Your task to perform on an android device: turn on wifi Image 0: 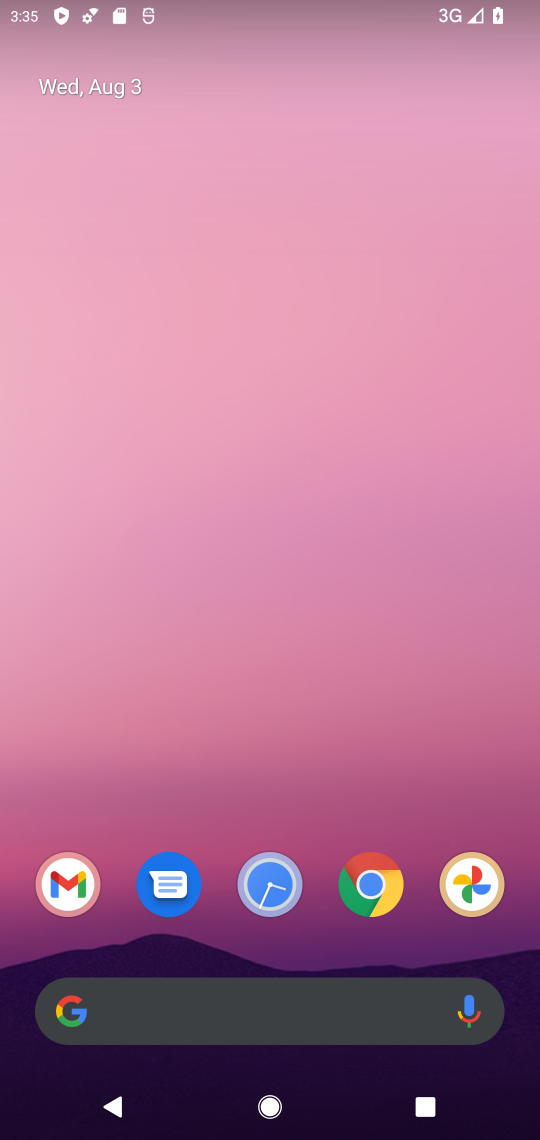
Step 0: drag from (209, 968) to (245, 234)
Your task to perform on an android device: turn on wifi Image 1: 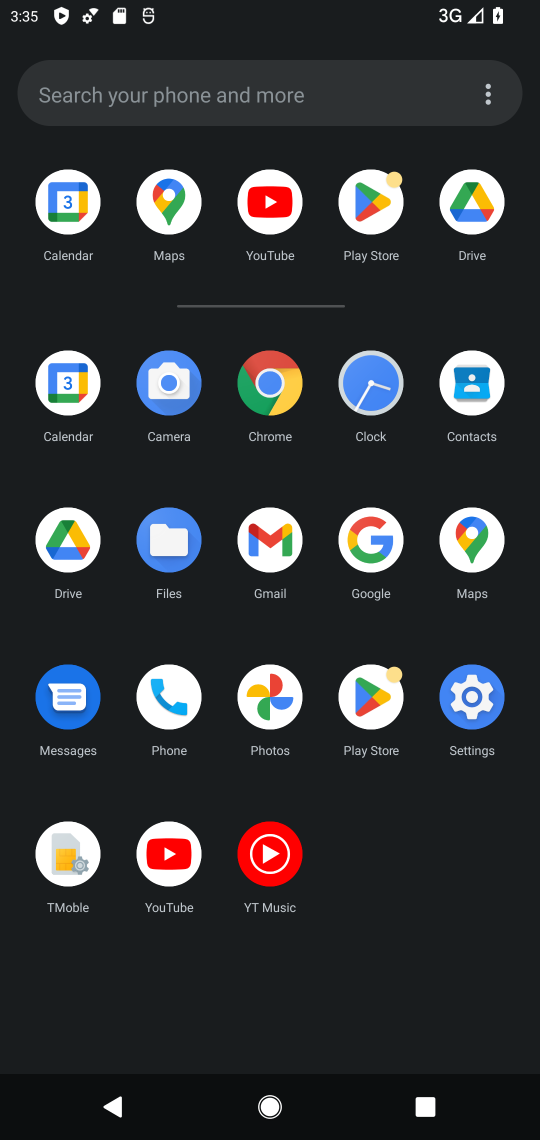
Step 1: click (477, 743)
Your task to perform on an android device: turn on wifi Image 2: 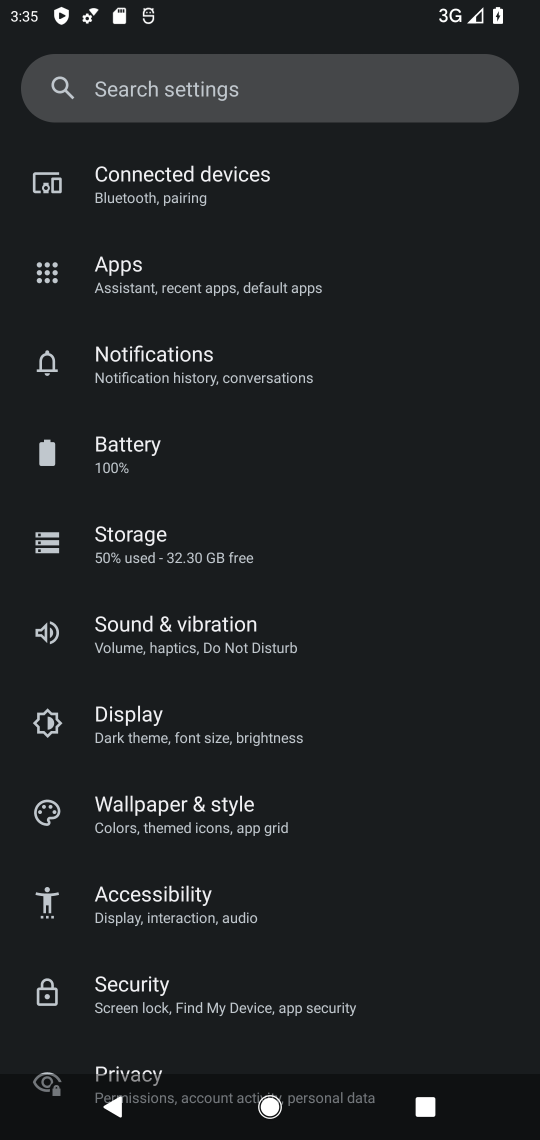
Step 2: click (235, 172)
Your task to perform on an android device: turn on wifi Image 3: 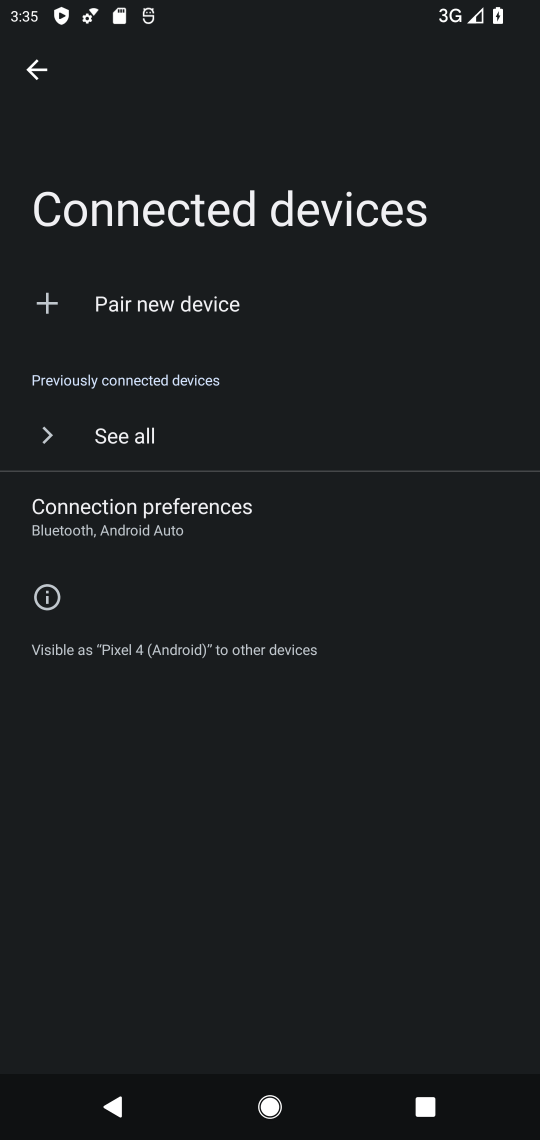
Step 3: click (199, 427)
Your task to perform on an android device: turn on wifi Image 4: 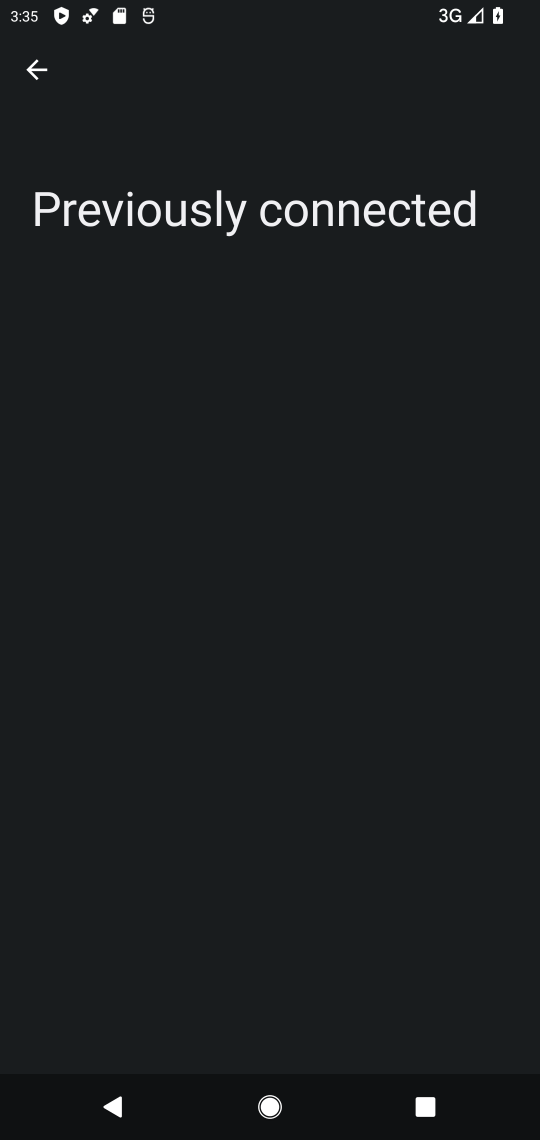
Step 4: task complete